Your task to perform on an android device: toggle pop-ups in chrome Image 0: 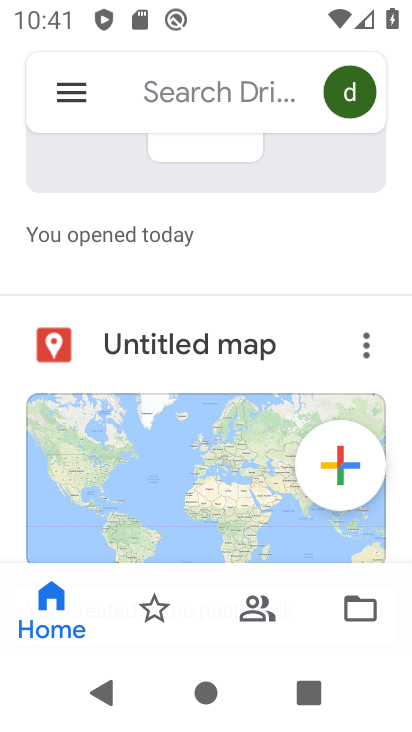
Step 0: press home button
Your task to perform on an android device: toggle pop-ups in chrome Image 1: 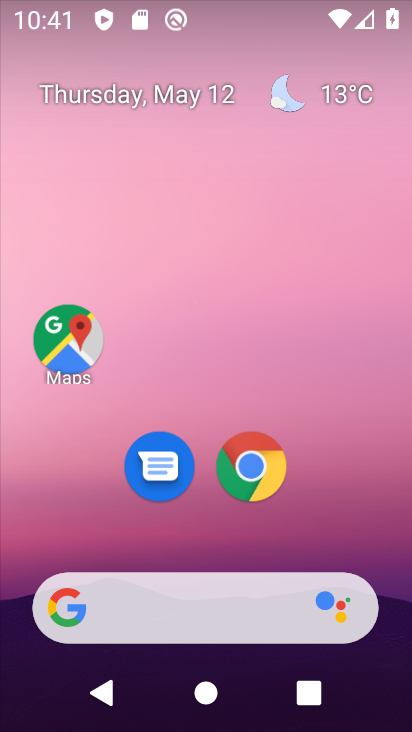
Step 1: drag from (370, 513) to (313, 0)
Your task to perform on an android device: toggle pop-ups in chrome Image 2: 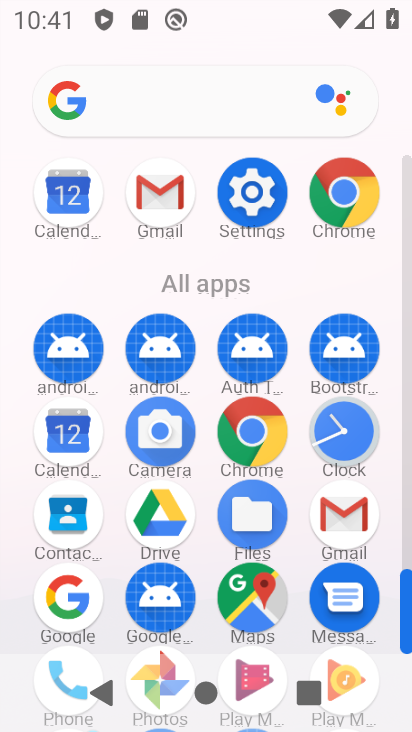
Step 2: click (347, 210)
Your task to perform on an android device: toggle pop-ups in chrome Image 3: 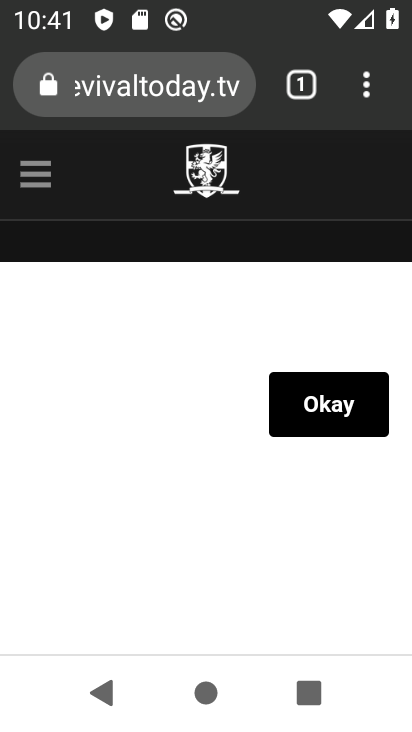
Step 3: drag from (368, 104) to (239, 523)
Your task to perform on an android device: toggle pop-ups in chrome Image 4: 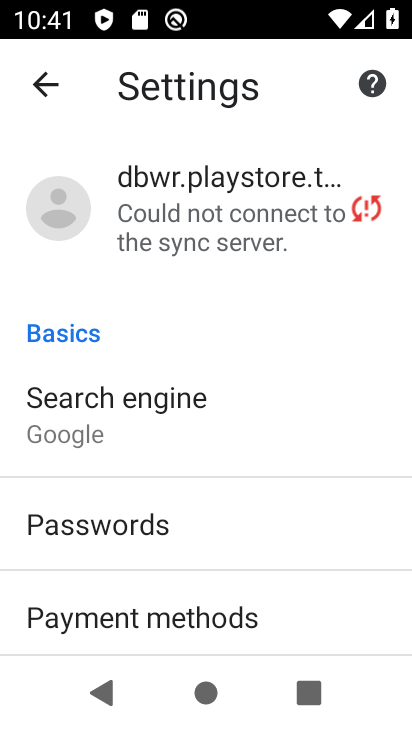
Step 4: drag from (285, 598) to (273, 377)
Your task to perform on an android device: toggle pop-ups in chrome Image 5: 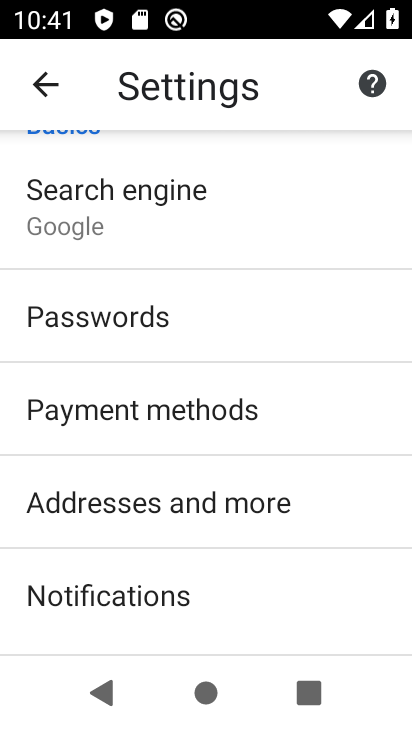
Step 5: drag from (302, 558) to (302, 254)
Your task to perform on an android device: toggle pop-ups in chrome Image 6: 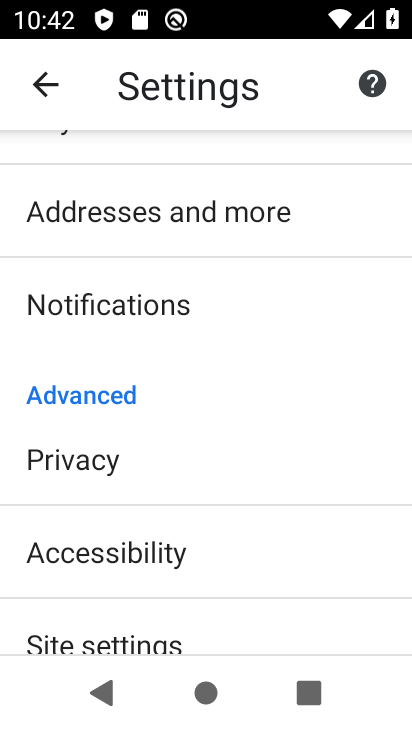
Step 6: drag from (227, 577) to (235, 391)
Your task to perform on an android device: toggle pop-ups in chrome Image 7: 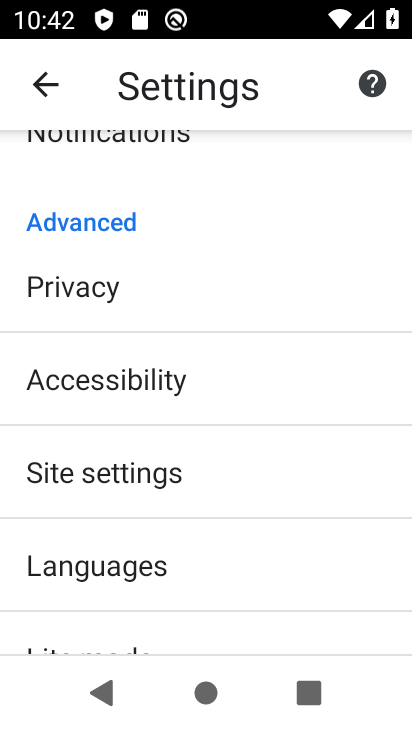
Step 7: drag from (207, 602) to (239, 341)
Your task to perform on an android device: toggle pop-ups in chrome Image 8: 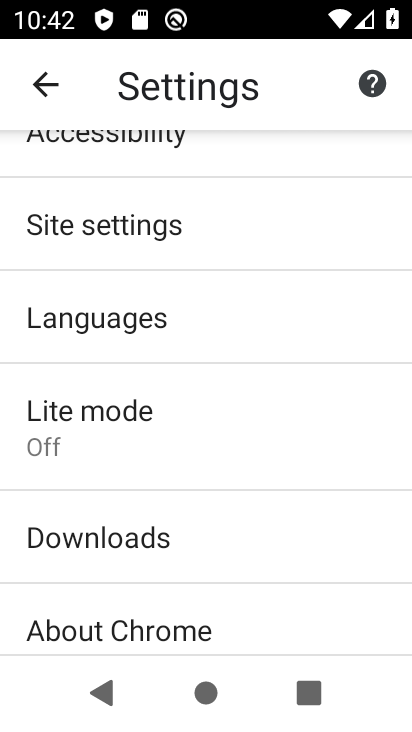
Step 8: click (201, 240)
Your task to perform on an android device: toggle pop-ups in chrome Image 9: 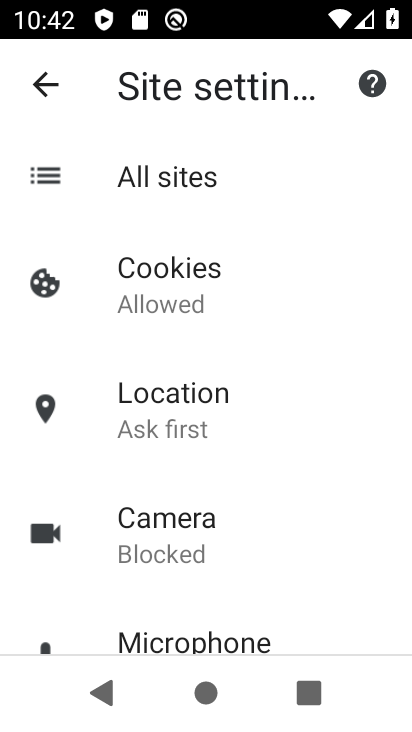
Step 9: drag from (247, 574) to (243, 260)
Your task to perform on an android device: toggle pop-ups in chrome Image 10: 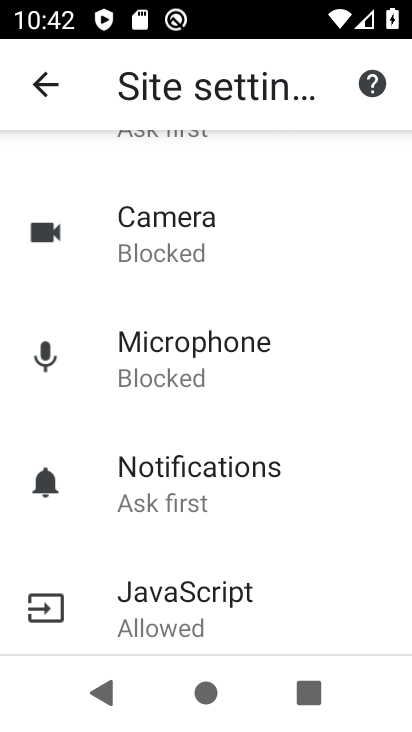
Step 10: drag from (267, 583) to (312, 300)
Your task to perform on an android device: toggle pop-ups in chrome Image 11: 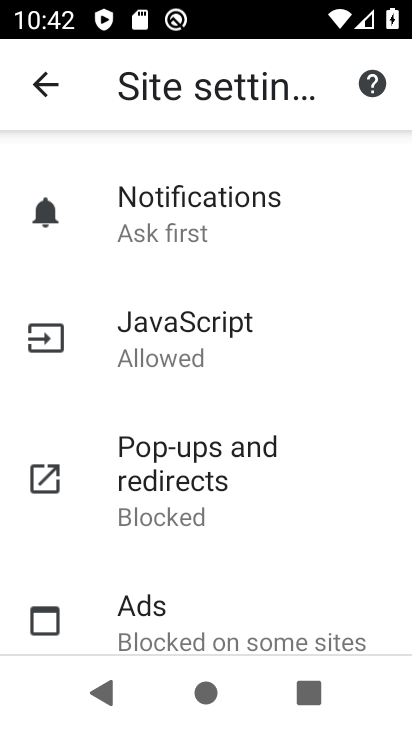
Step 11: click (252, 454)
Your task to perform on an android device: toggle pop-ups in chrome Image 12: 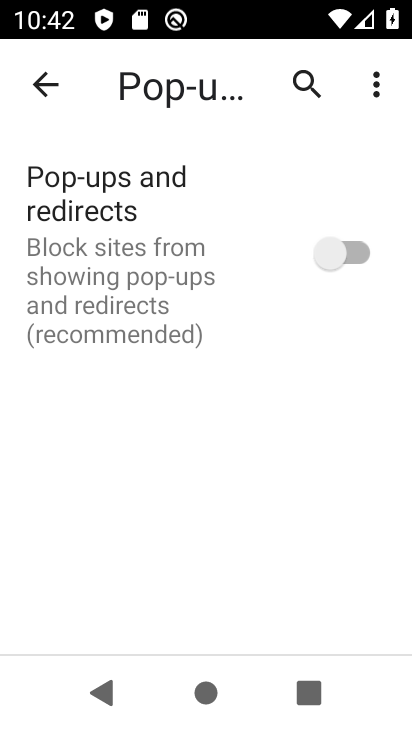
Step 12: click (365, 254)
Your task to perform on an android device: toggle pop-ups in chrome Image 13: 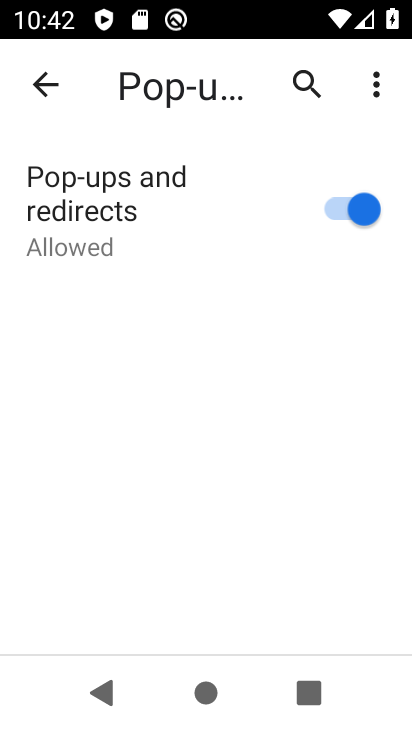
Step 13: task complete